Your task to perform on an android device: set the timer Image 0: 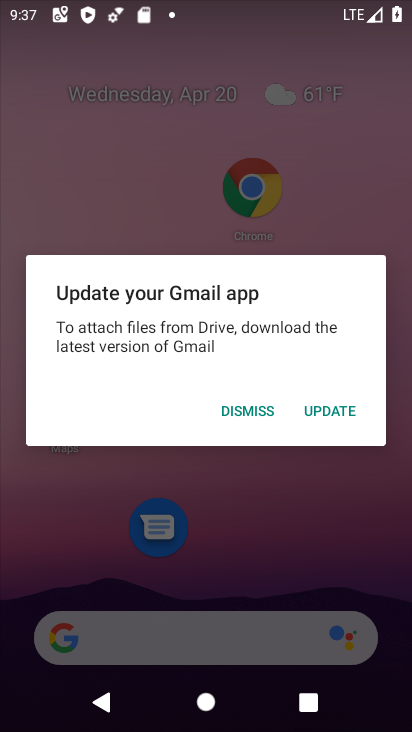
Step 0: press home button
Your task to perform on an android device: set the timer Image 1: 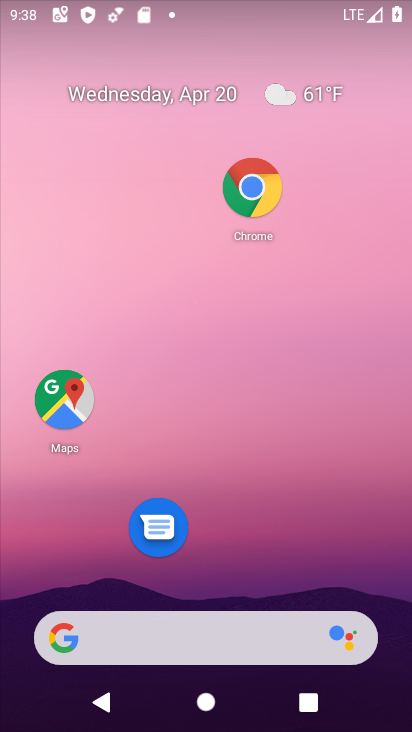
Step 1: drag from (256, 537) to (342, 31)
Your task to perform on an android device: set the timer Image 2: 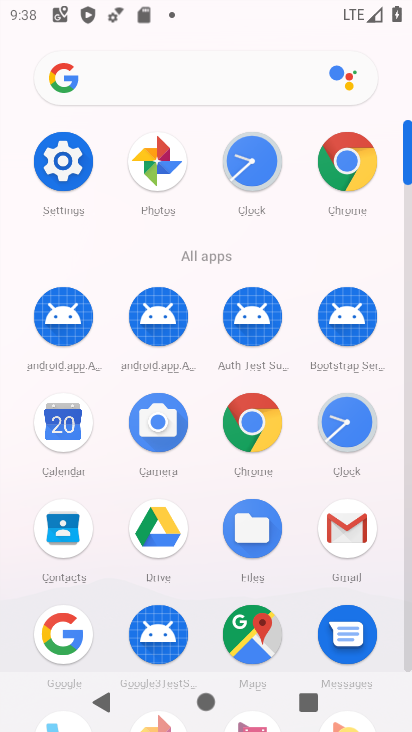
Step 2: click (350, 430)
Your task to perform on an android device: set the timer Image 3: 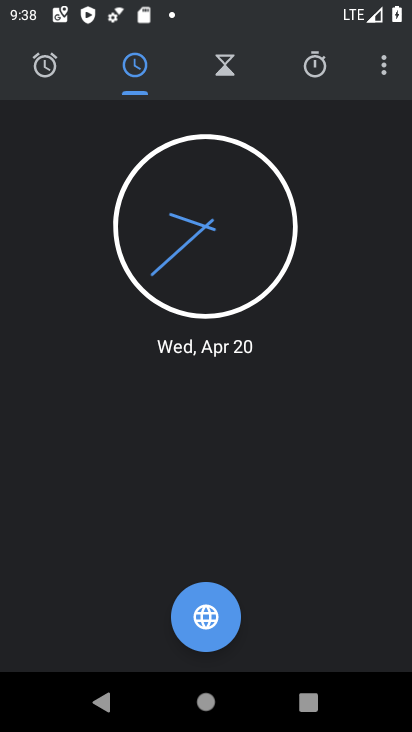
Step 3: click (230, 65)
Your task to perform on an android device: set the timer Image 4: 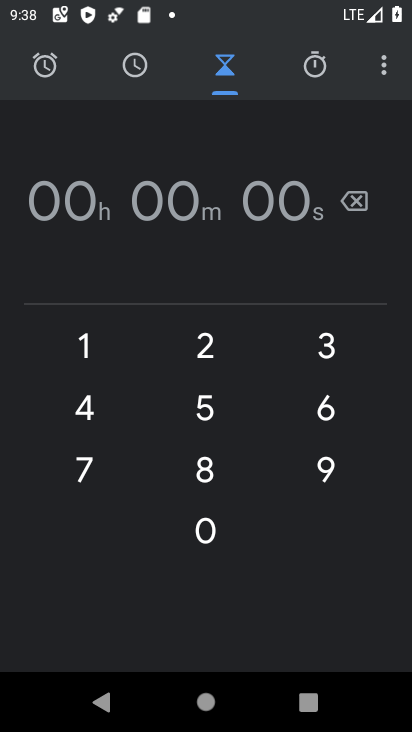
Step 4: click (84, 342)
Your task to perform on an android device: set the timer Image 5: 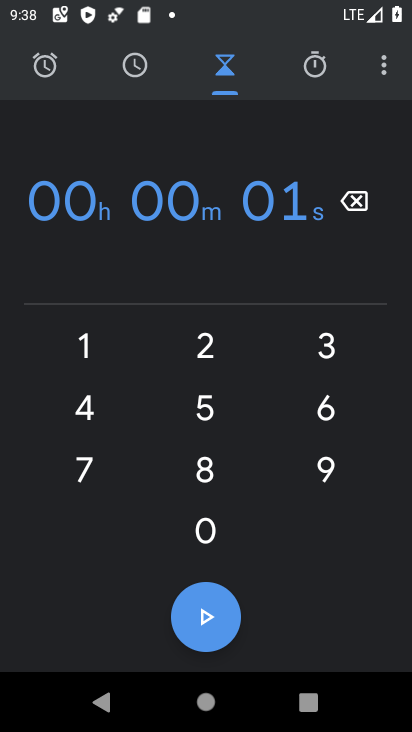
Step 5: click (84, 342)
Your task to perform on an android device: set the timer Image 6: 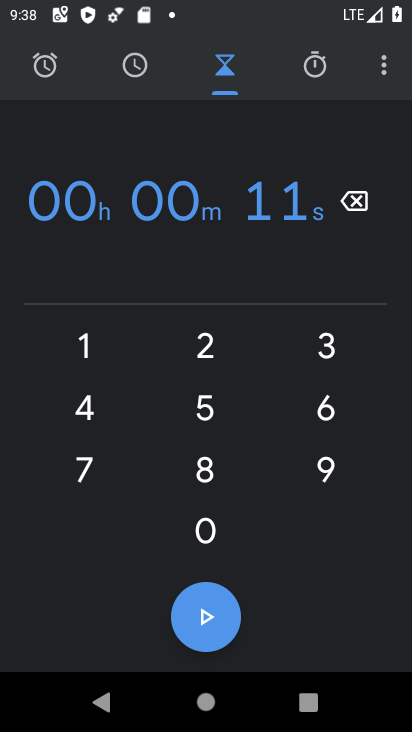
Step 6: click (84, 342)
Your task to perform on an android device: set the timer Image 7: 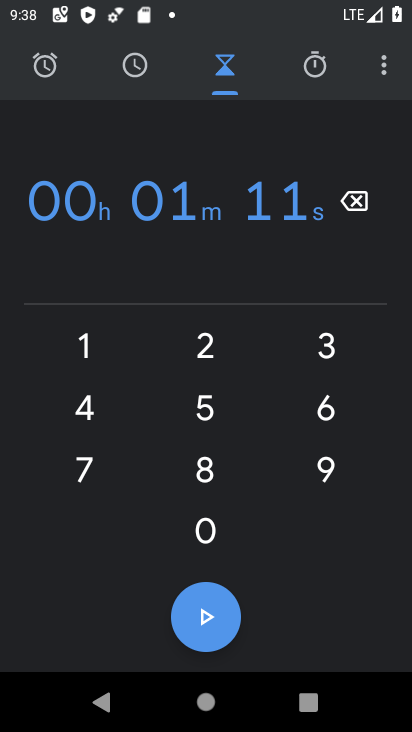
Step 7: click (84, 342)
Your task to perform on an android device: set the timer Image 8: 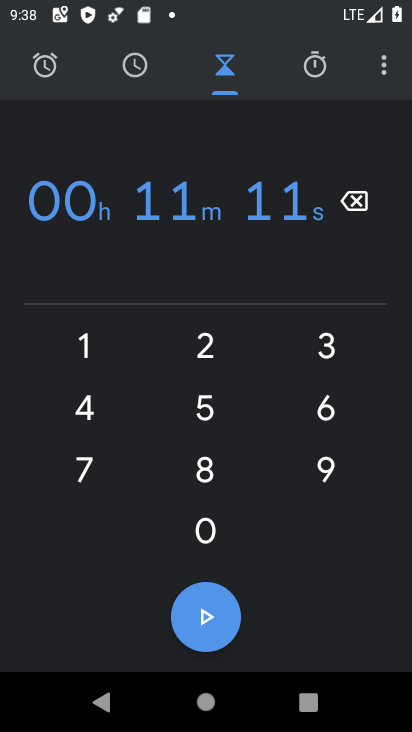
Step 8: click (84, 342)
Your task to perform on an android device: set the timer Image 9: 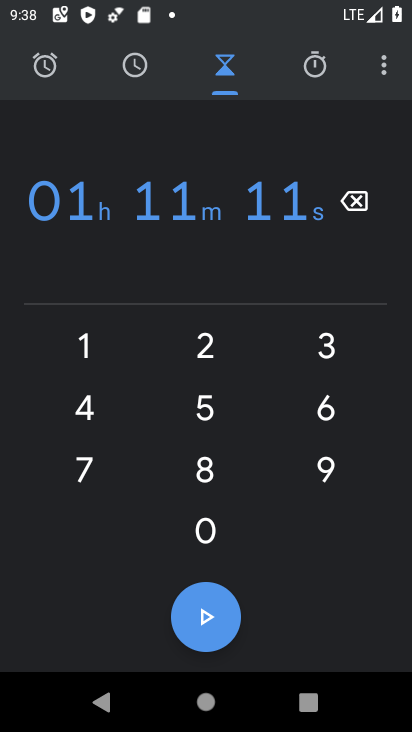
Step 9: task complete